Your task to perform on an android device: Do I have any events today? Image 0: 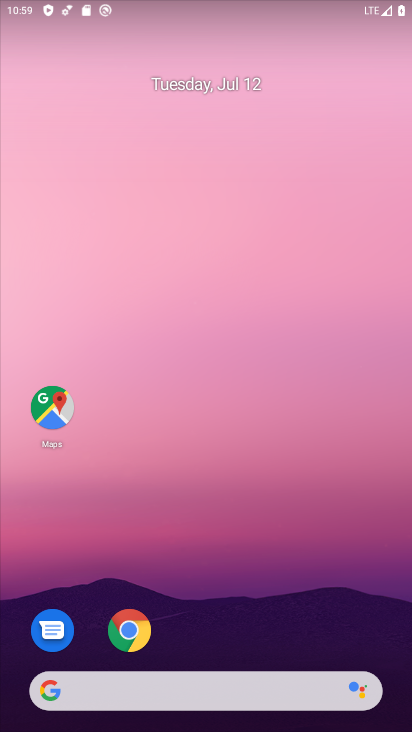
Step 0: drag from (356, 632) to (192, 37)
Your task to perform on an android device: Do I have any events today? Image 1: 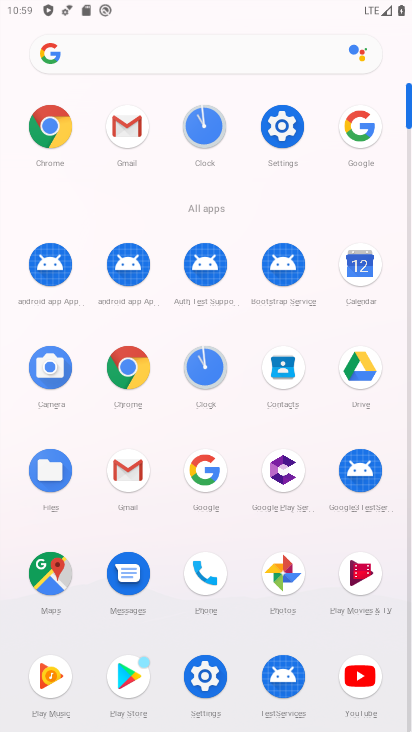
Step 1: click (349, 258)
Your task to perform on an android device: Do I have any events today? Image 2: 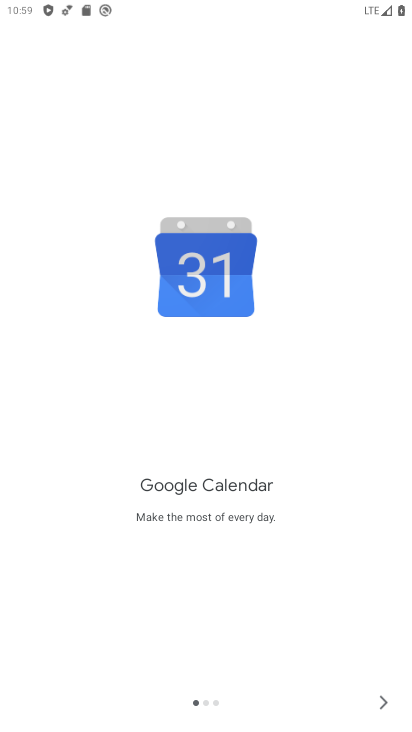
Step 2: click (381, 697)
Your task to perform on an android device: Do I have any events today? Image 3: 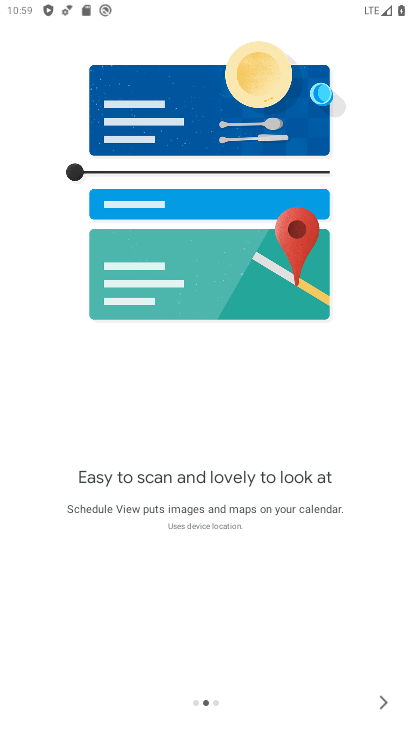
Step 3: click (381, 697)
Your task to perform on an android device: Do I have any events today? Image 4: 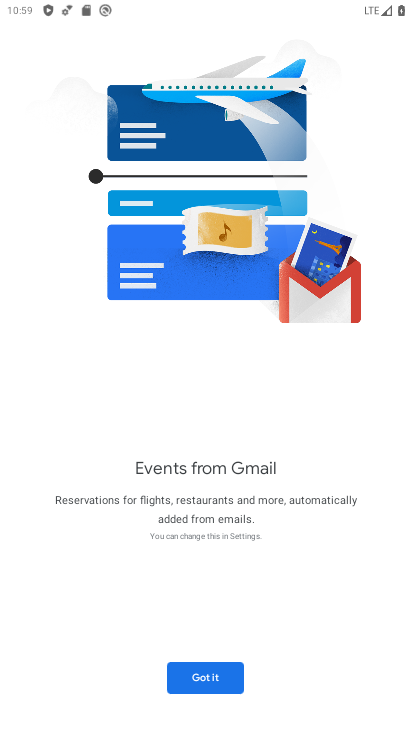
Step 4: click (192, 686)
Your task to perform on an android device: Do I have any events today? Image 5: 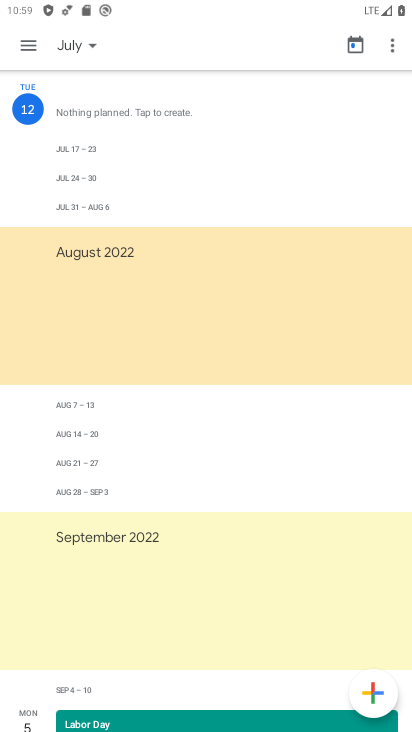
Step 5: click (65, 38)
Your task to perform on an android device: Do I have any events today? Image 6: 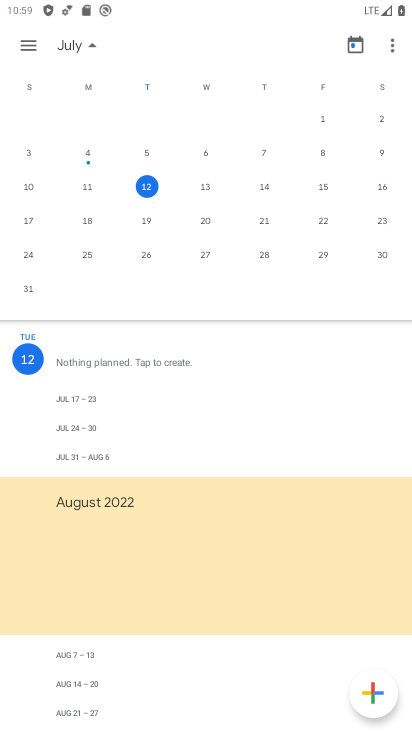
Step 6: click (206, 180)
Your task to perform on an android device: Do I have any events today? Image 7: 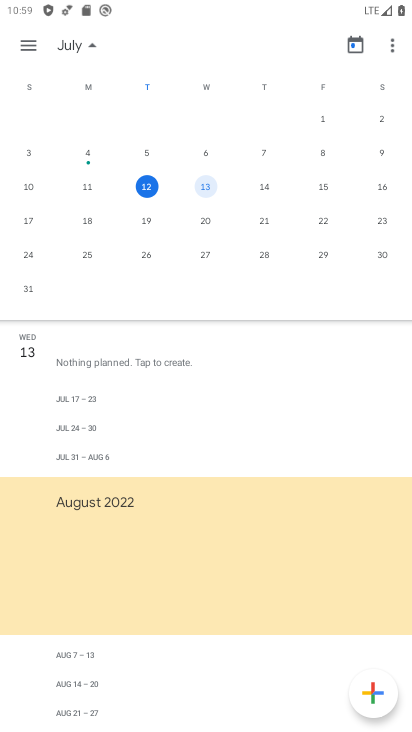
Step 7: click (145, 395)
Your task to perform on an android device: Do I have any events today? Image 8: 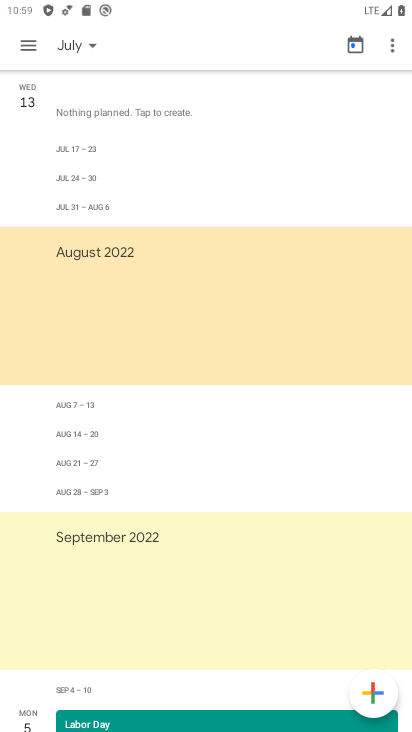
Step 8: task complete